Your task to perform on an android device: install app "Instagram" Image 0: 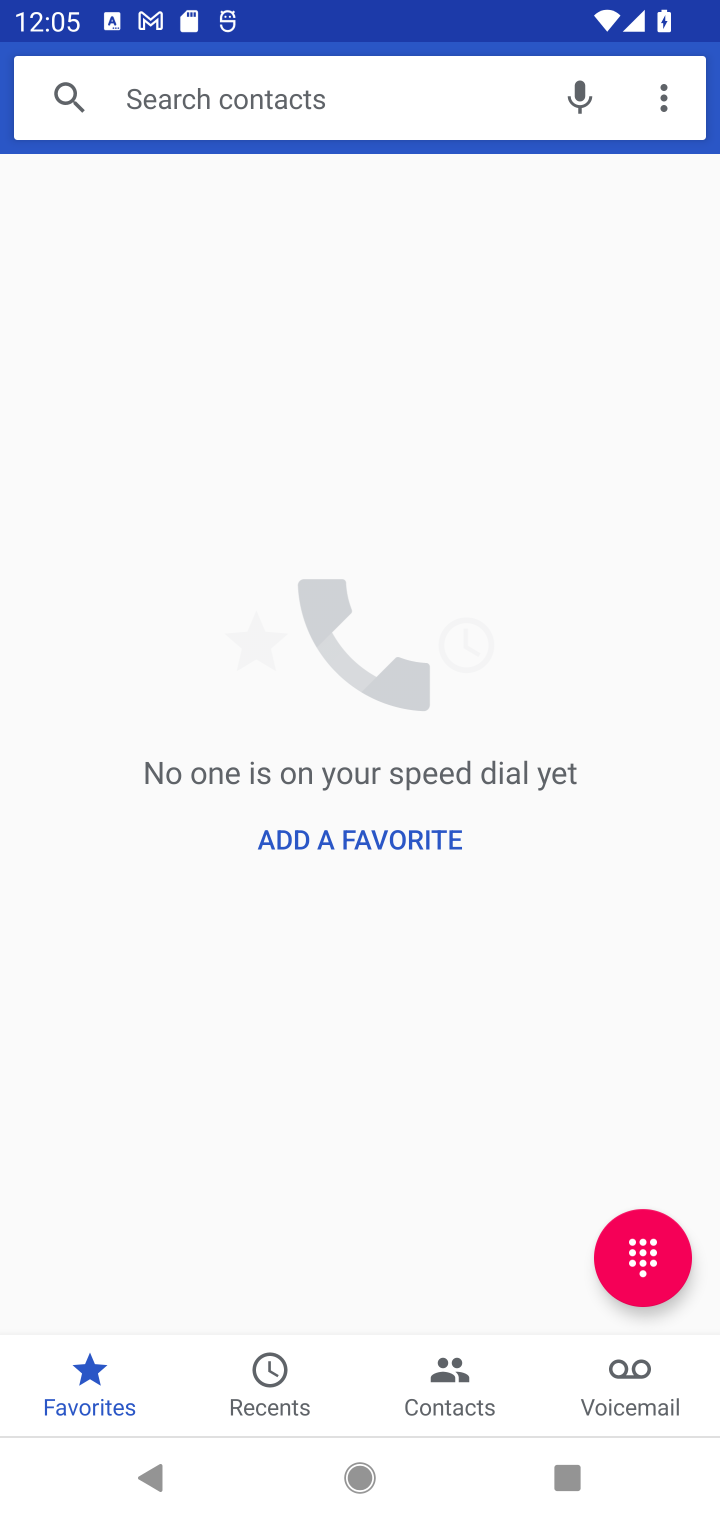
Step 0: press home button
Your task to perform on an android device: install app "Instagram" Image 1: 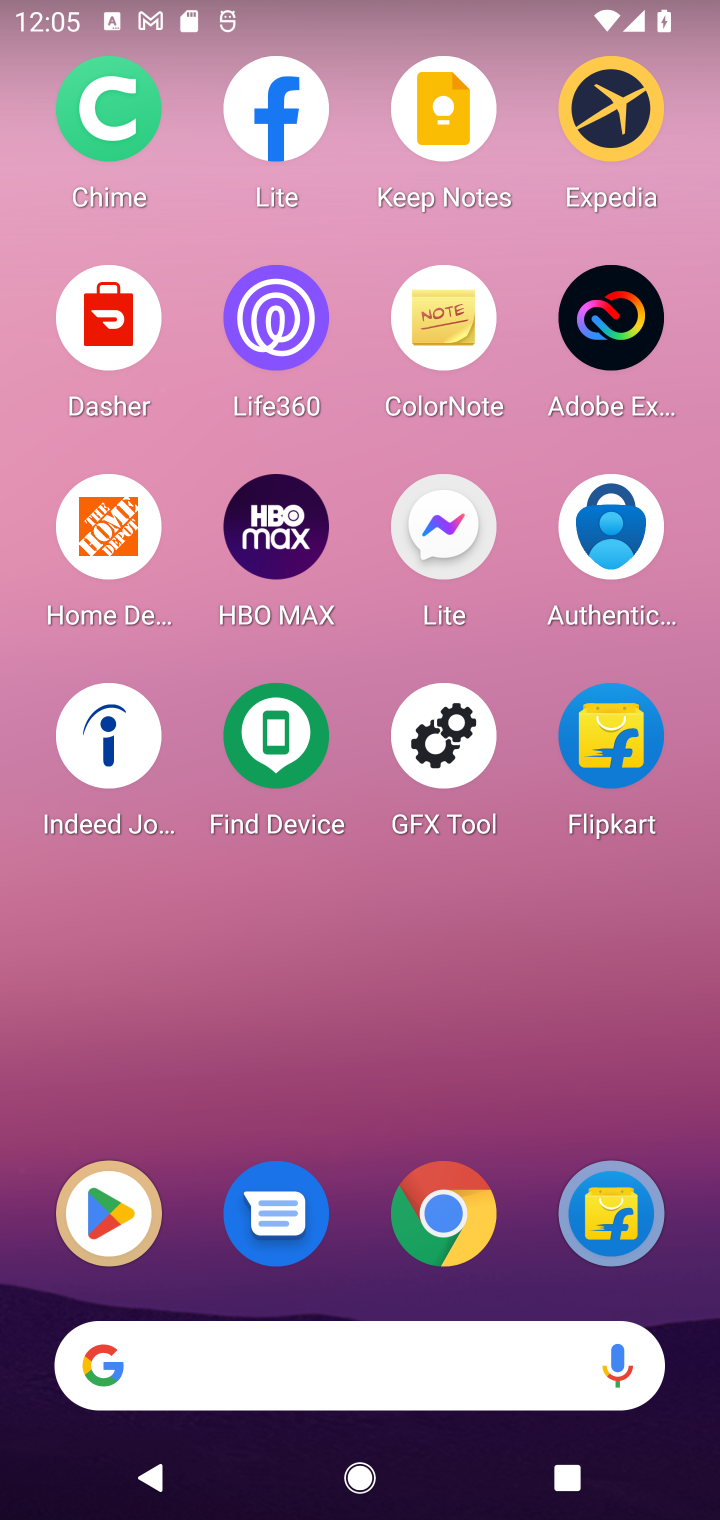
Step 1: click (109, 1215)
Your task to perform on an android device: install app "Instagram" Image 2: 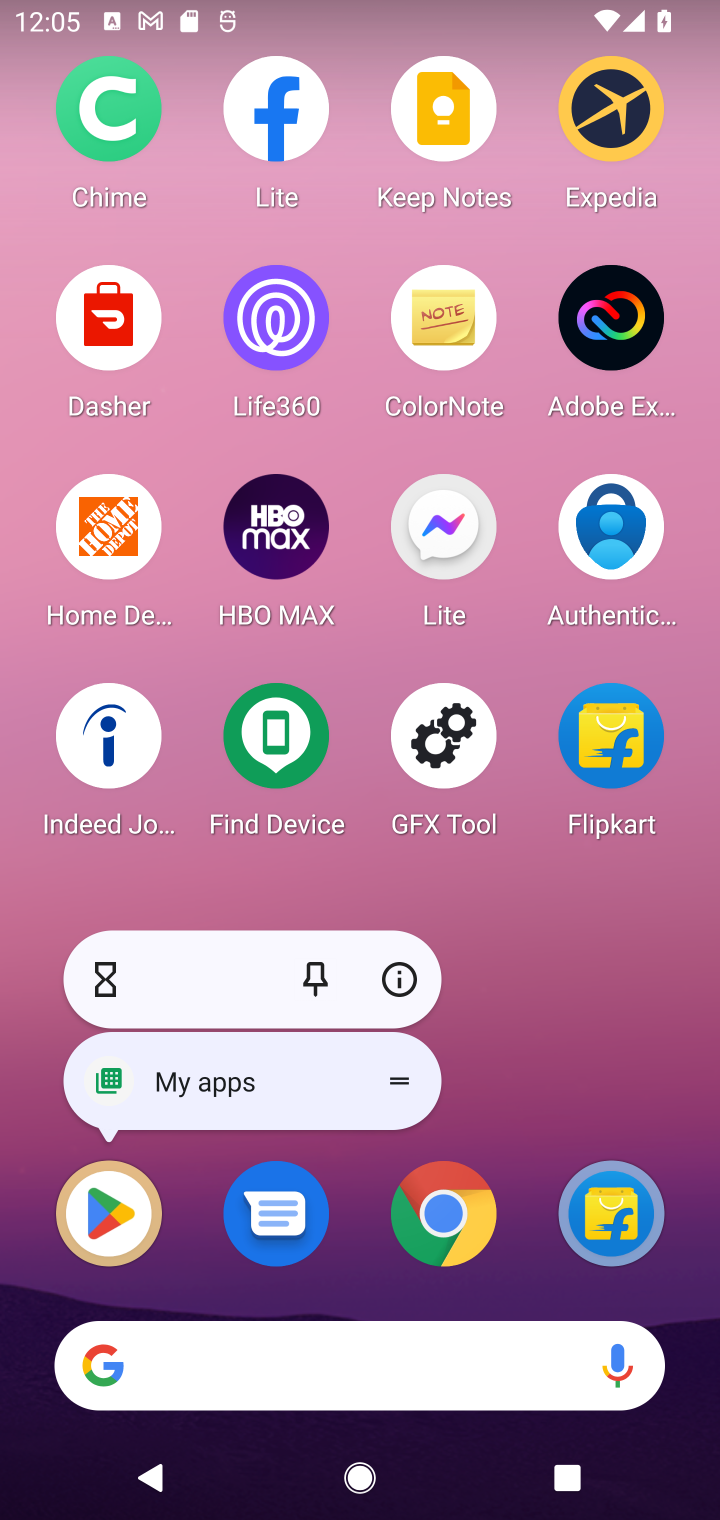
Step 2: click (109, 1230)
Your task to perform on an android device: install app "Instagram" Image 3: 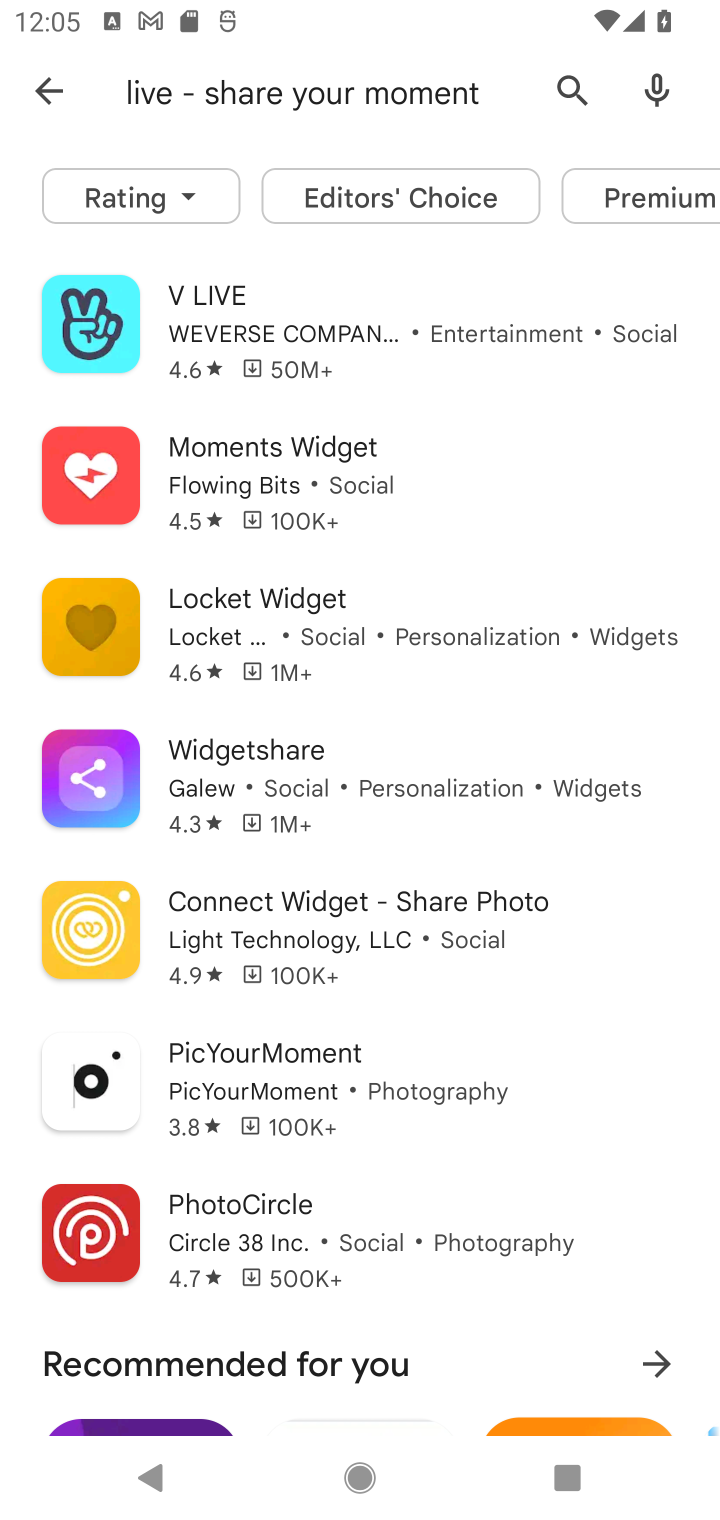
Step 3: click (39, 110)
Your task to perform on an android device: install app "Instagram" Image 4: 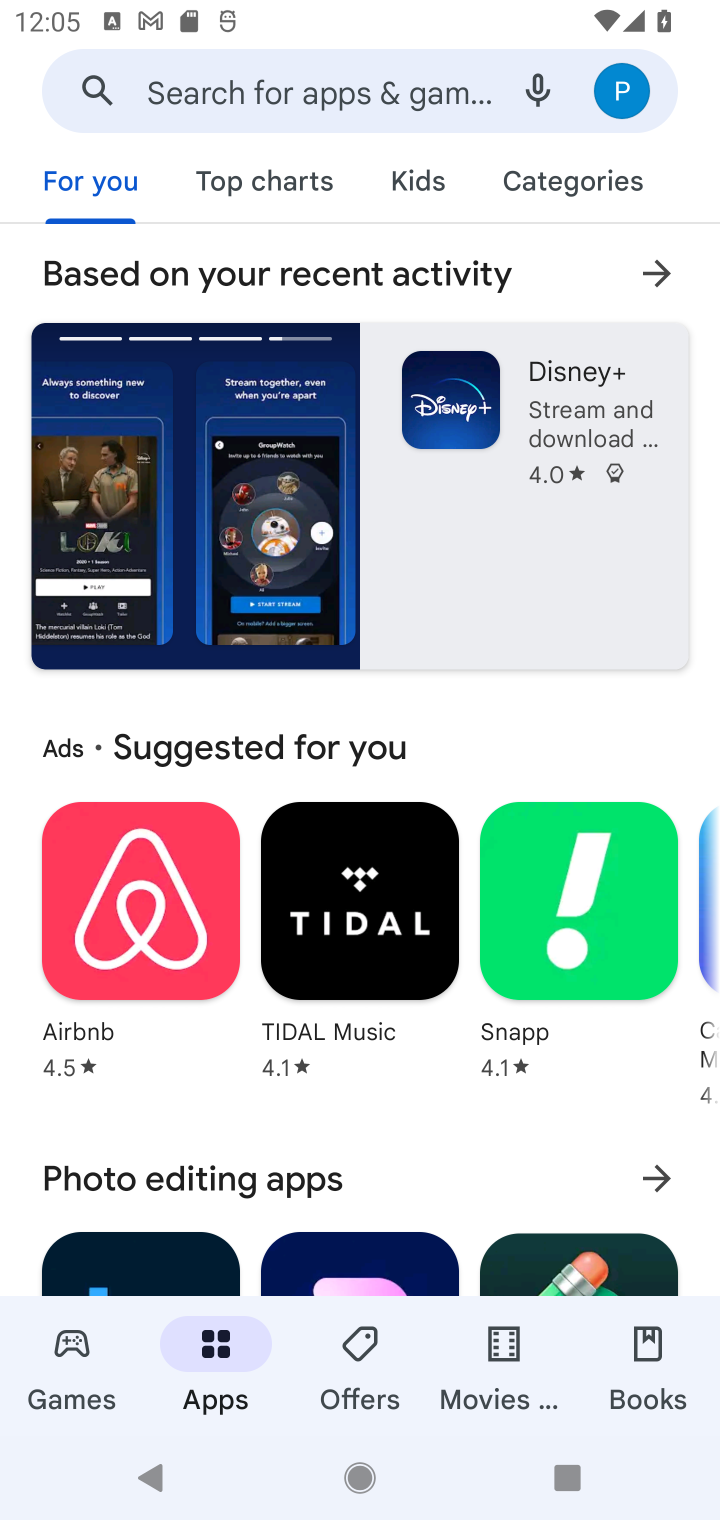
Step 4: click (224, 88)
Your task to perform on an android device: install app "Instagram" Image 5: 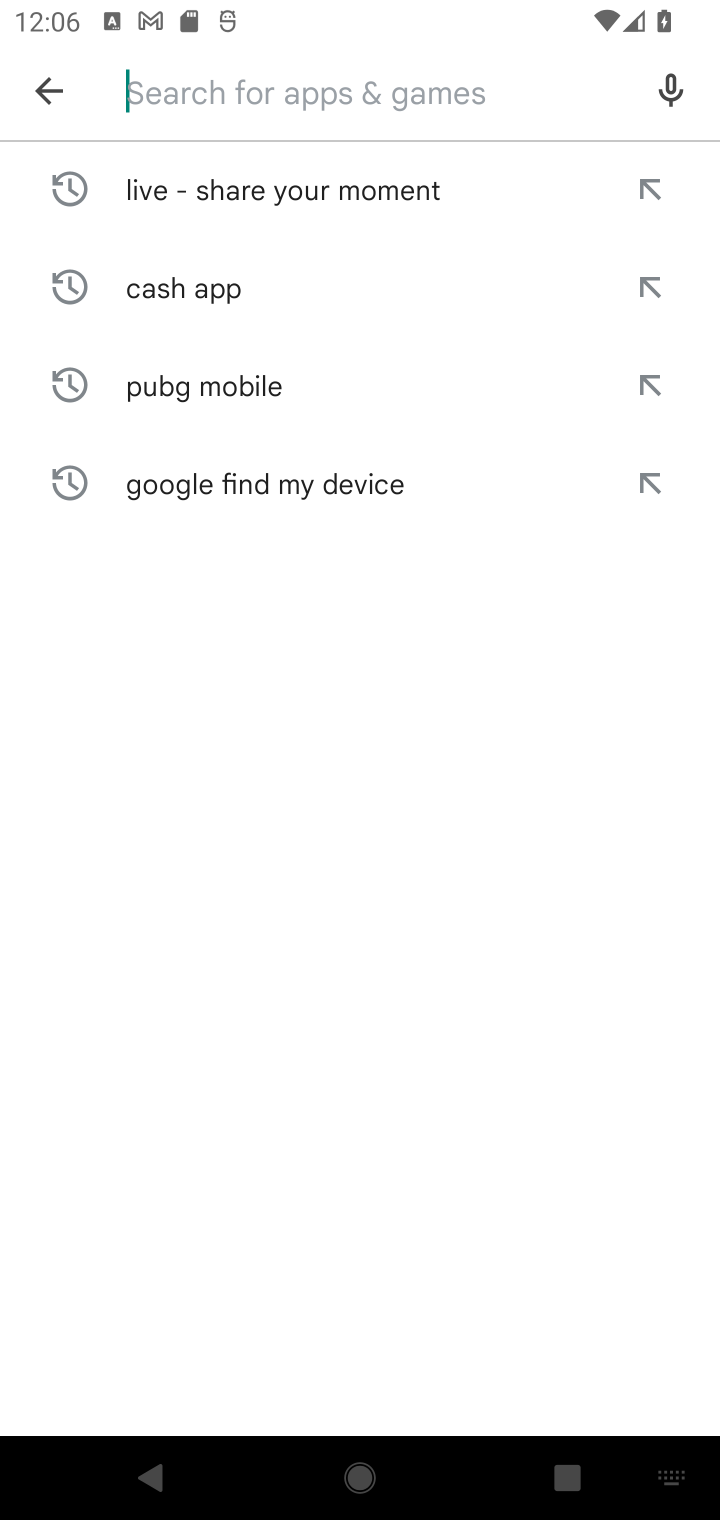
Step 5: type "Instagram"
Your task to perform on an android device: install app "Instagram" Image 6: 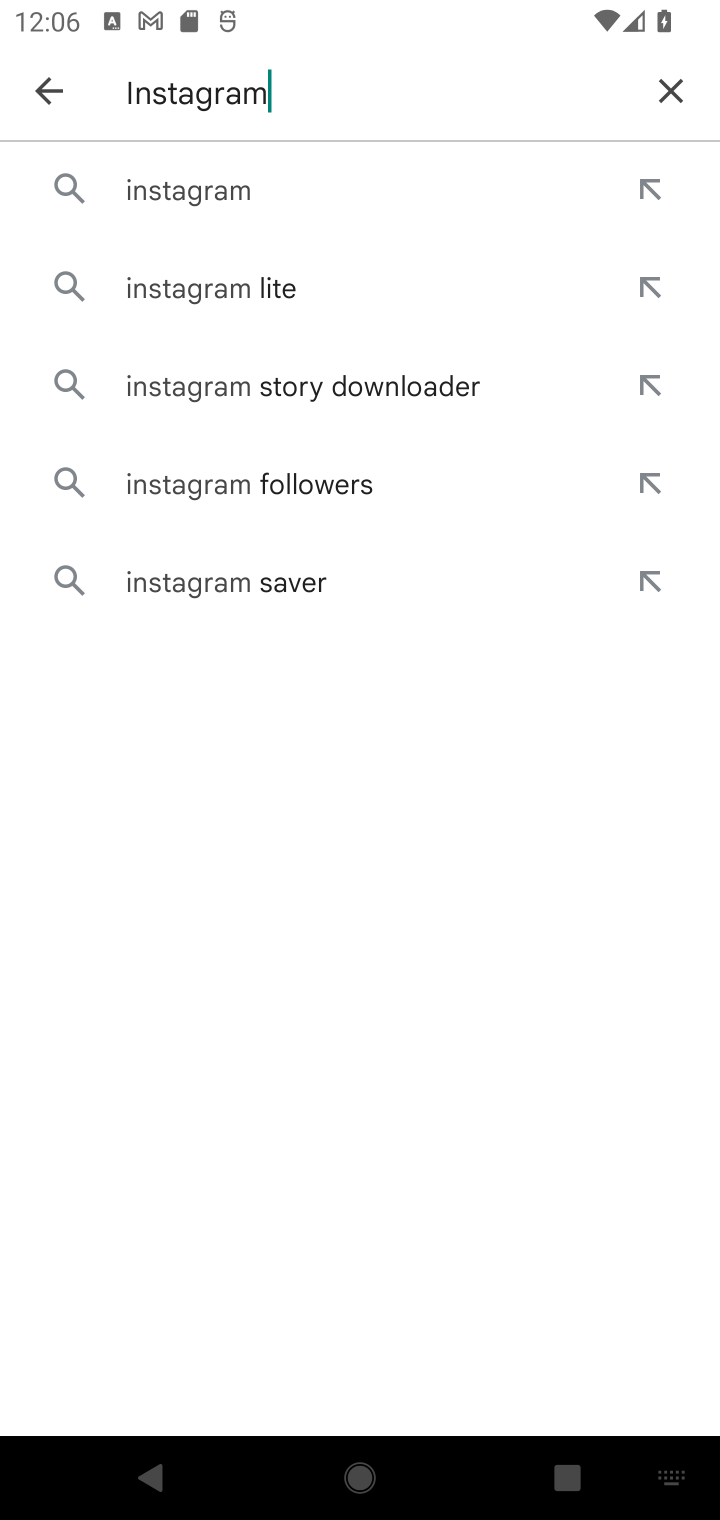
Step 6: click (201, 186)
Your task to perform on an android device: install app "Instagram" Image 7: 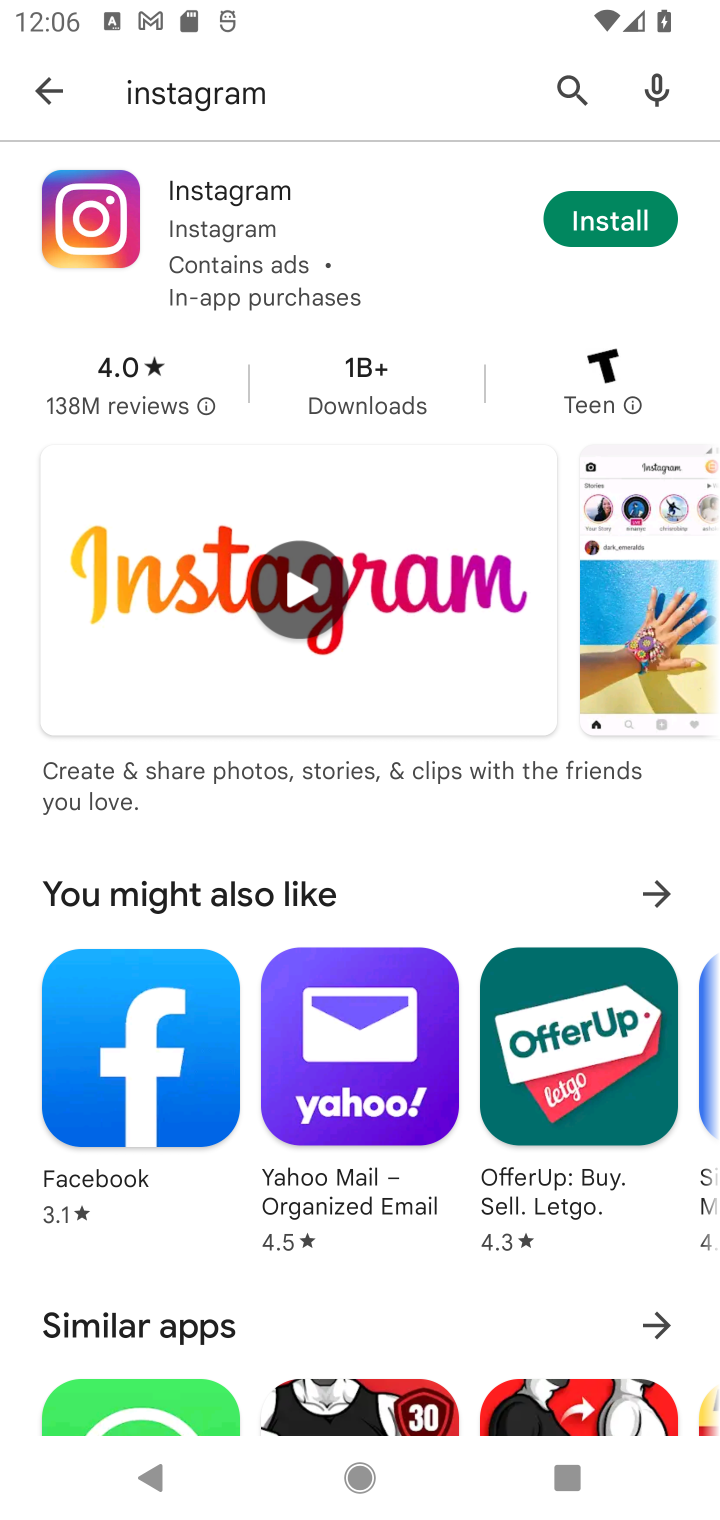
Step 7: click (620, 215)
Your task to perform on an android device: install app "Instagram" Image 8: 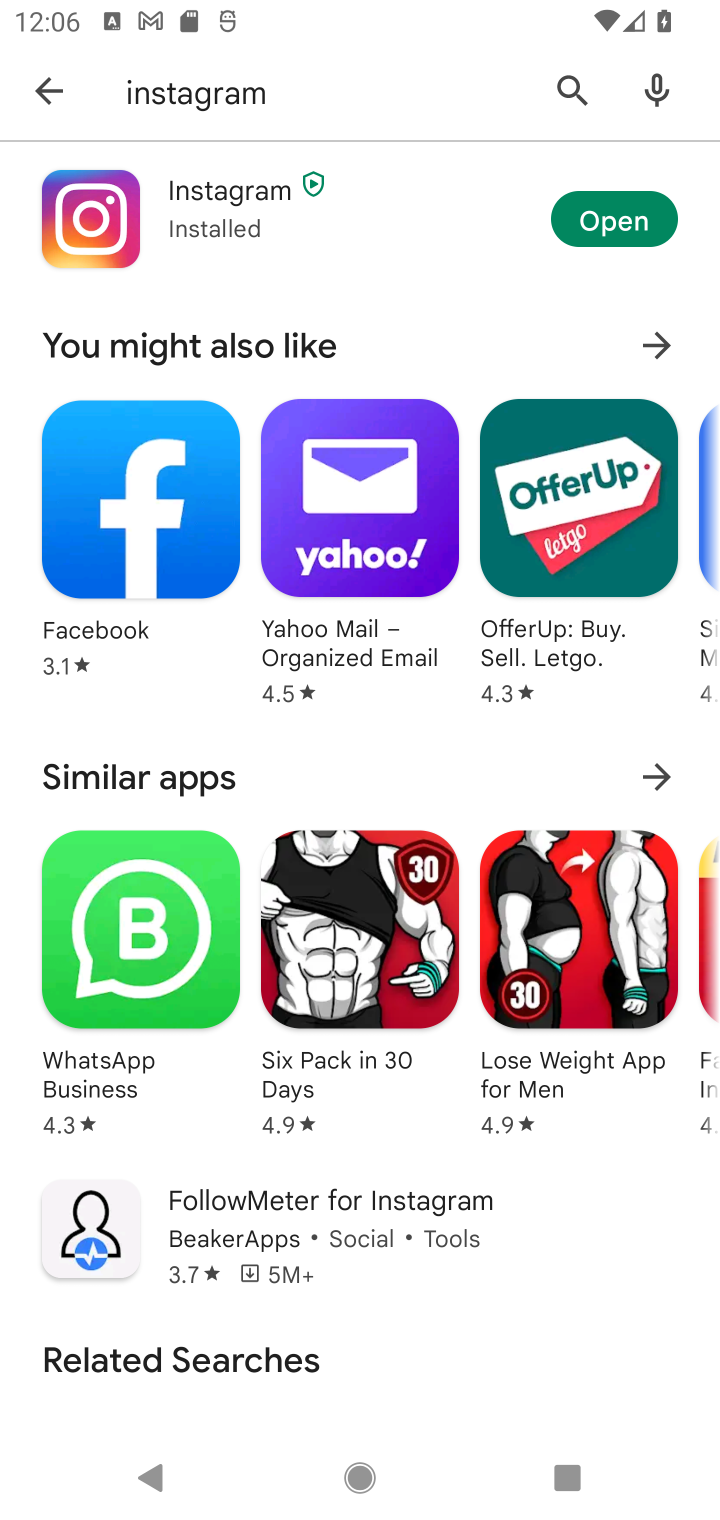
Step 8: click (608, 230)
Your task to perform on an android device: install app "Instagram" Image 9: 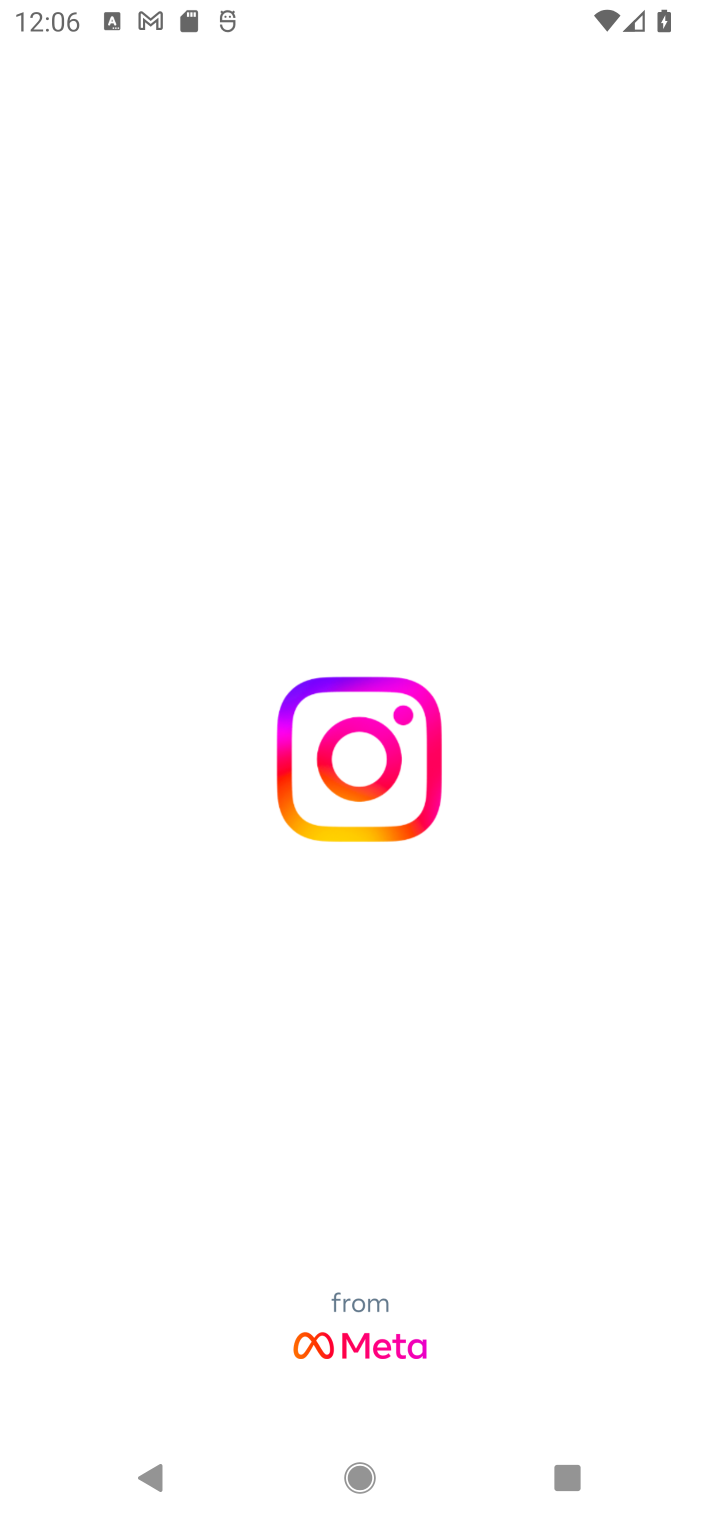
Step 9: task complete